Your task to perform on an android device: Open Youtube and go to the subscriptions tab Image 0: 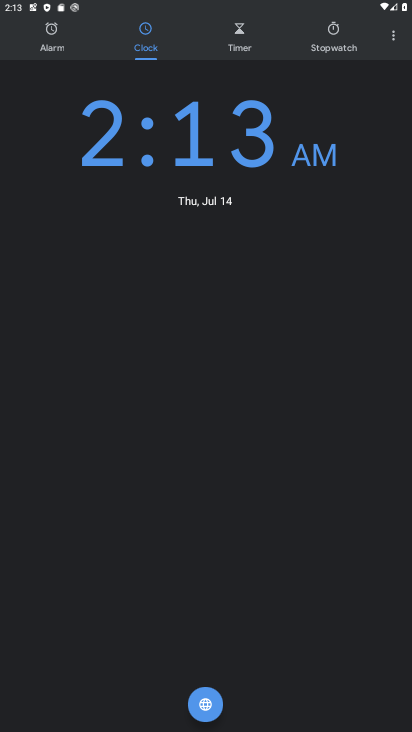
Step 0: press home button
Your task to perform on an android device: Open Youtube and go to the subscriptions tab Image 1: 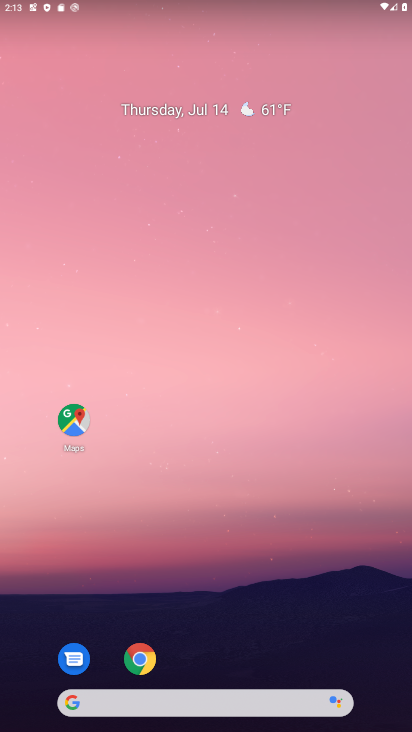
Step 1: drag from (257, 645) to (175, 264)
Your task to perform on an android device: Open Youtube and go to the subscriptions tab Image 2: 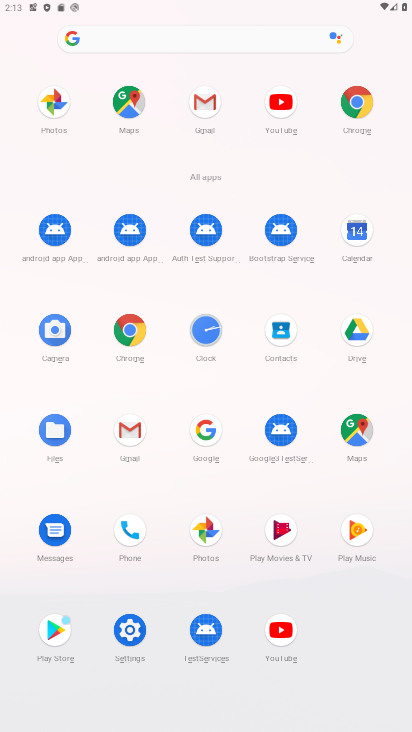
Step 2: click (286, 107)
Your task to perform on an android device: Open Youtube and go to the subscriptions tab Image 3: 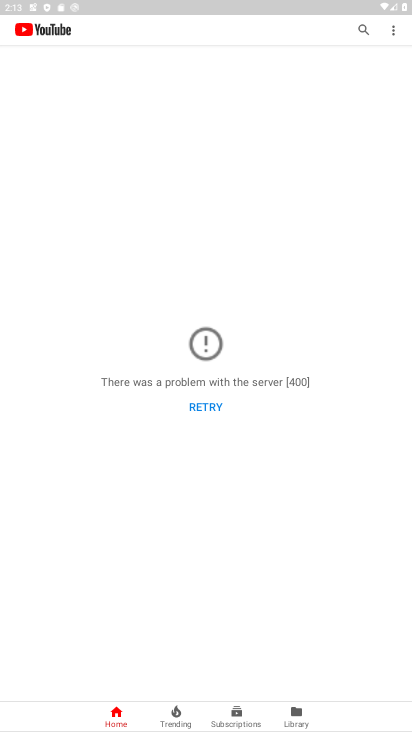
Step 3: click (228, 722)
Your task to perform on an android device: Open Youtube and go to the subscriptions tab Image 4: 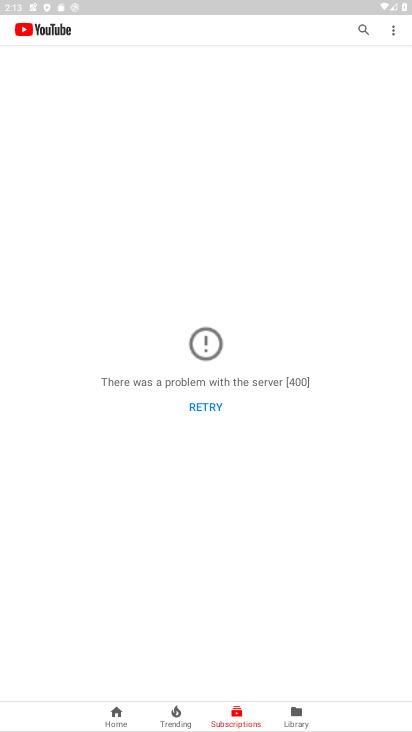
Step 4: task complete